Your task to perform on an android device: toggle airplane mode Image 0: 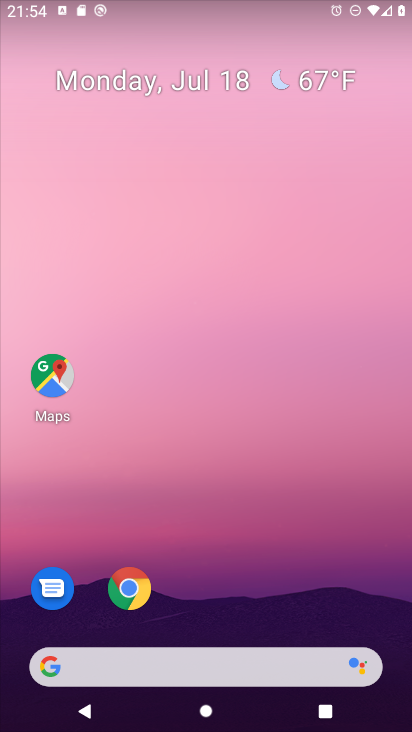
Step 0: drag from (390, 634) to (350, 45)
Your task to perform on an android device: toggle airplane mode Image 1: 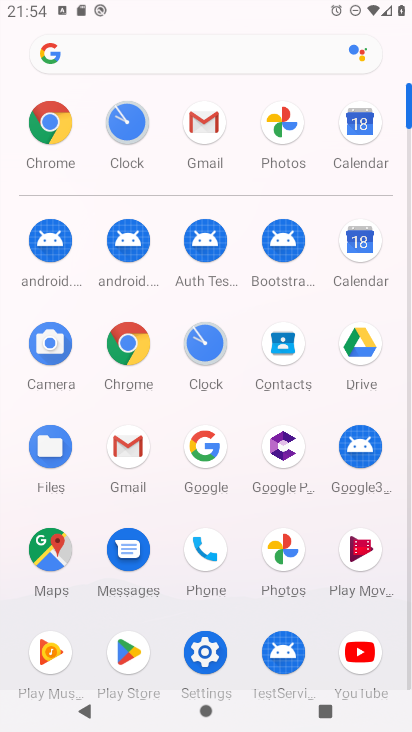
Step 1: click (205, 652)
Your task to perform on an android device: toggle airplane mode Image 2: 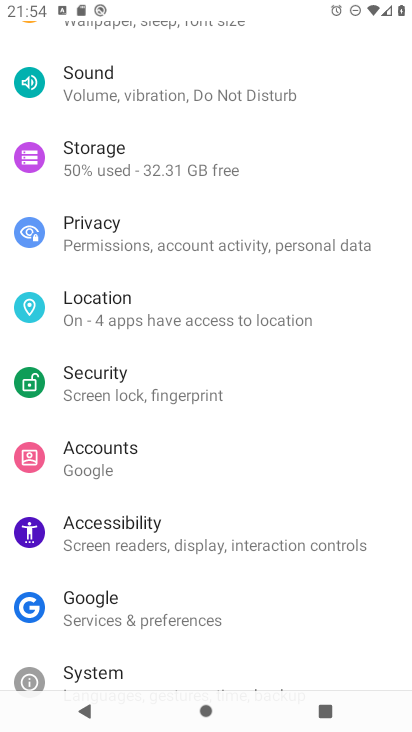
Step 2: drag from (308, 253) to (251, 550)
Your task to perform on an android device: toggle airplane mode Image 3: 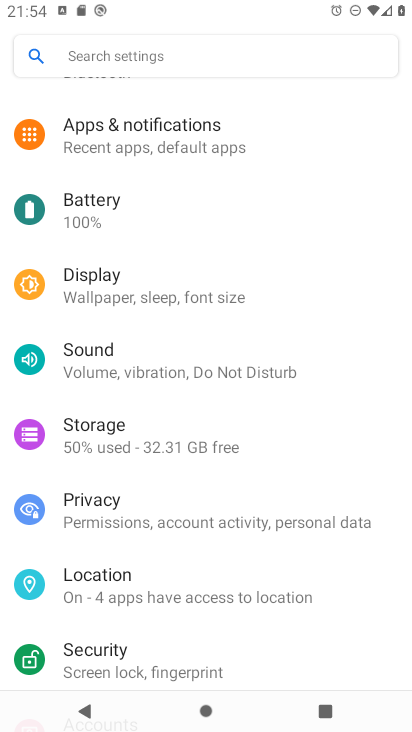
Step 3: drag from (277, 312) to (250, 601)
Your task to perform on an android device: toggle airplane mode Image 4: 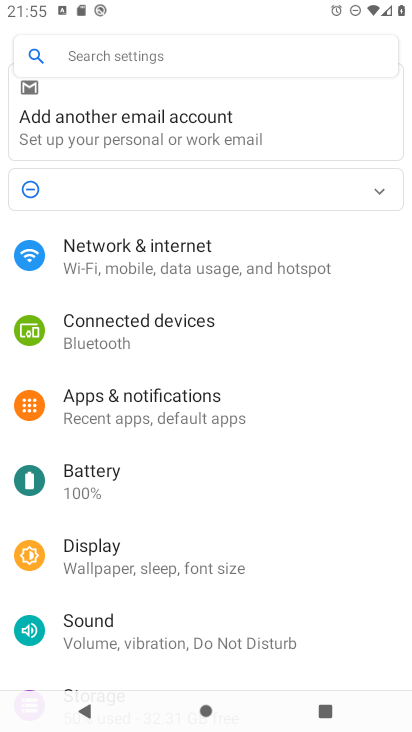
Step 4: click (116, 257)
Your task to perform on an android device: toggle airplane mode Image 5: 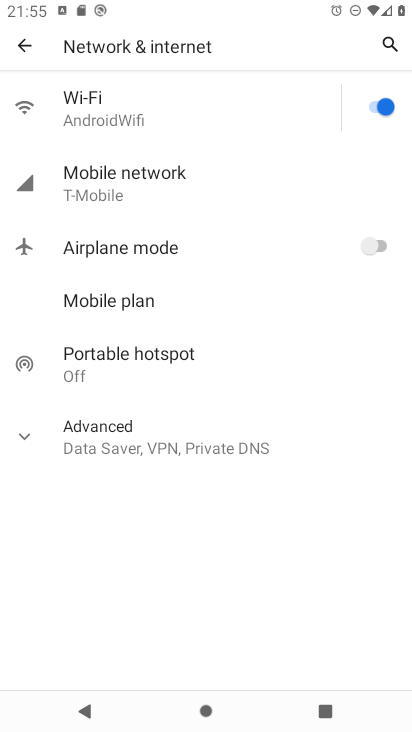
Step 5: click (380, 245)
Your task to perform on an android device: toggle airplane mode Image 6: 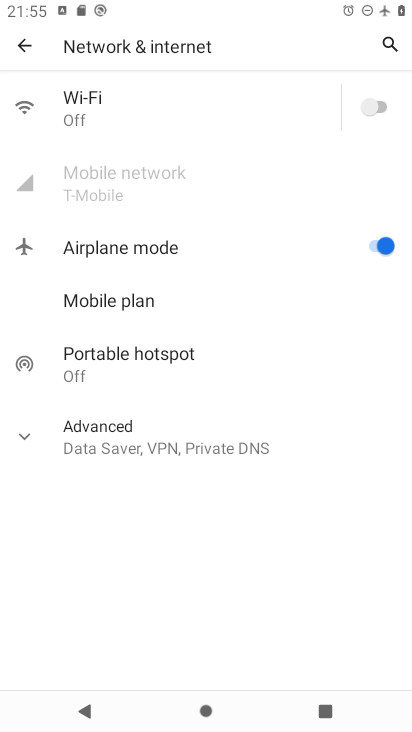
Step 6: task complete